Your task to perform on an android device: visit the assistant section in the google photos Image 0: 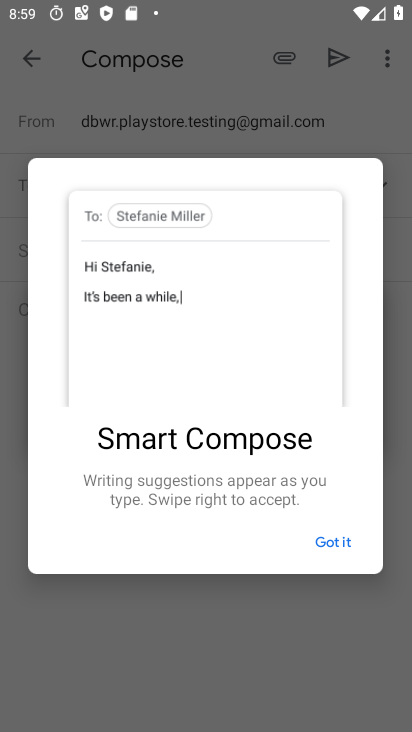
Step 0: press back button
Your task to perform on an android device: visit the assistant section in the google photos Image 1: 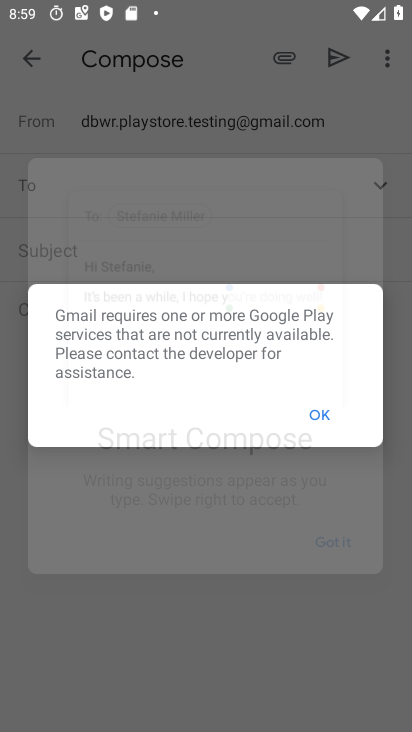
Step 1: press home button
Your task to perform on an android device: visit the assistant section in the google photos Image 2: 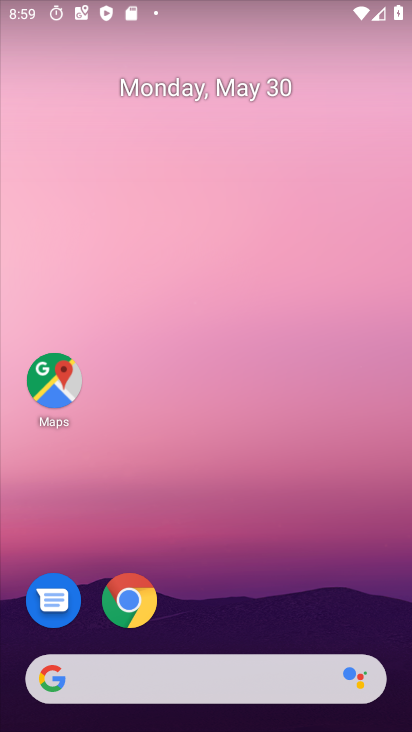
Step 2: drag from (237, 501) to (208, 3)
Your task to perform on an android device: visit the assistant section in the google photos Image 3: 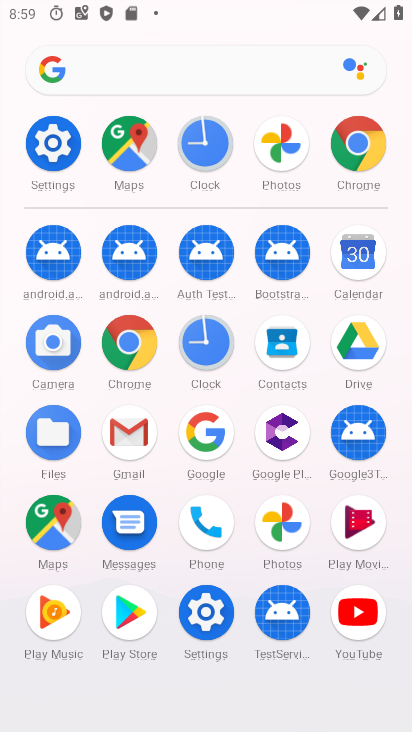
Step 3: drag from (14, 574) to (14, 329)
Your task to perform on an android device: visit the assistant section in the google photos Image 4: 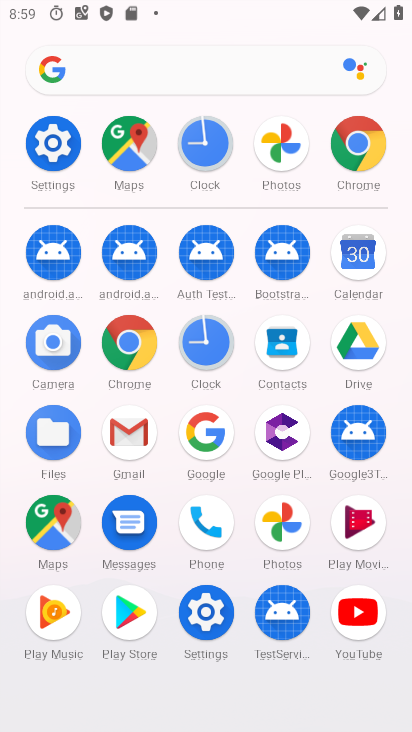
Step 4: click (282, 518)
Your task to perform on an android device: visit the assistant section in the google photos Image 5: 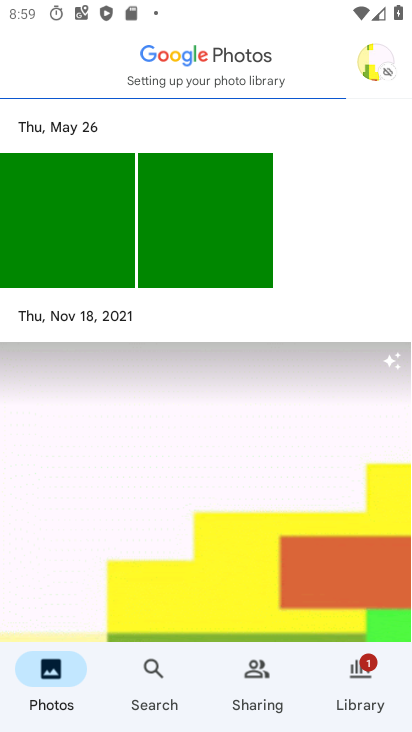
Step 5: click (360, 71)
Your task to perform on an android device: visit the assistant section in the google photos Image 6: 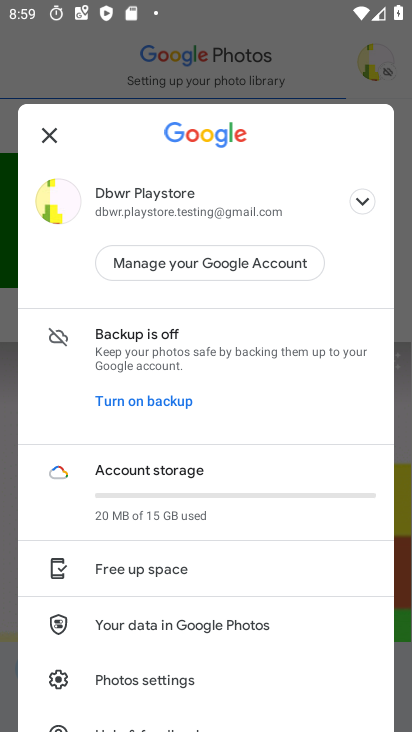
Step 6: click (176, 680)
Your task to perform on an android device: visit the assistant section in the google photos Image 7: 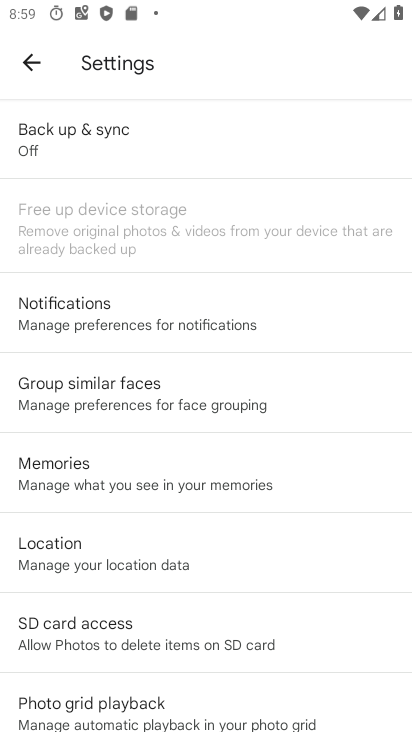
Step 7: click (32, 23)
Your task to perform on an android device: visit the assistant section in the google photos Image 8: 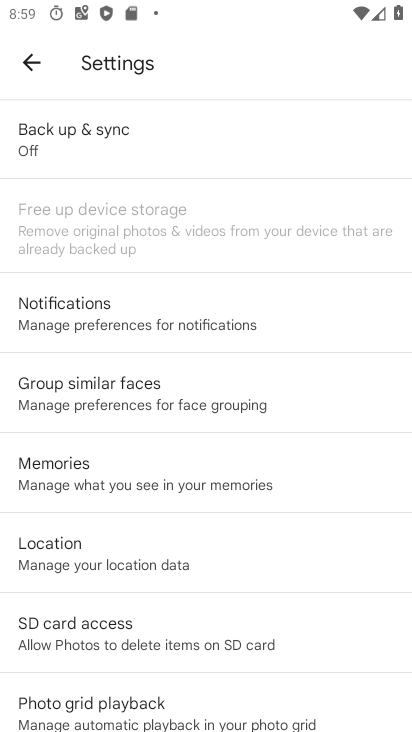
Step 8: click (28, 70)
Your task to perform on an android device: visit the assistant section in the google photos Image 9: 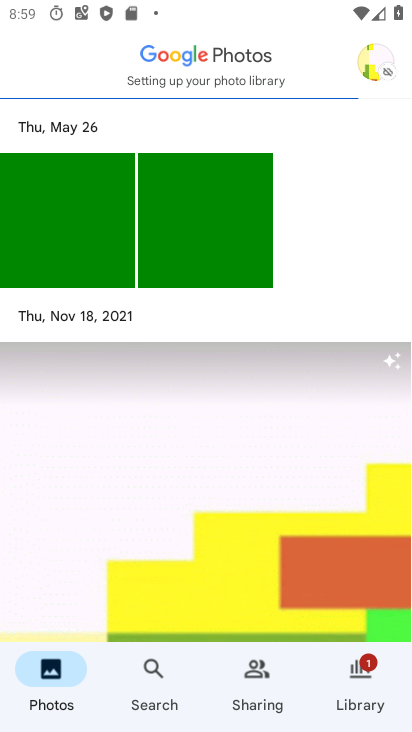
Step 9: task complete